Your task to perform on an android device: Open the Play Movies app and select the watchlist tab. Image 0: 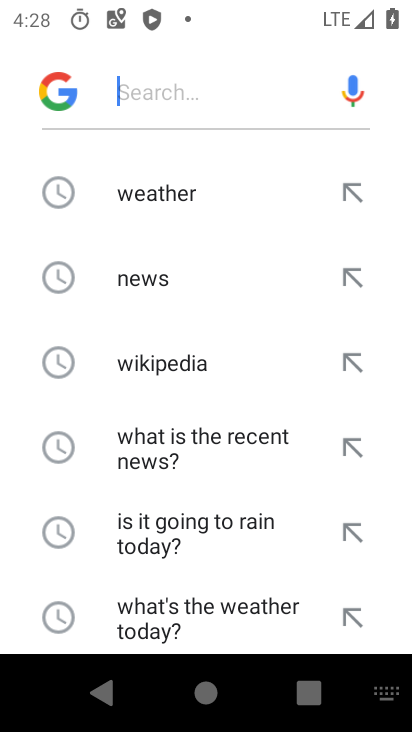
Step 0: press home button
Your task to perform on an android device: Open the Play Movies app and select the watchlist tab. Image 1: 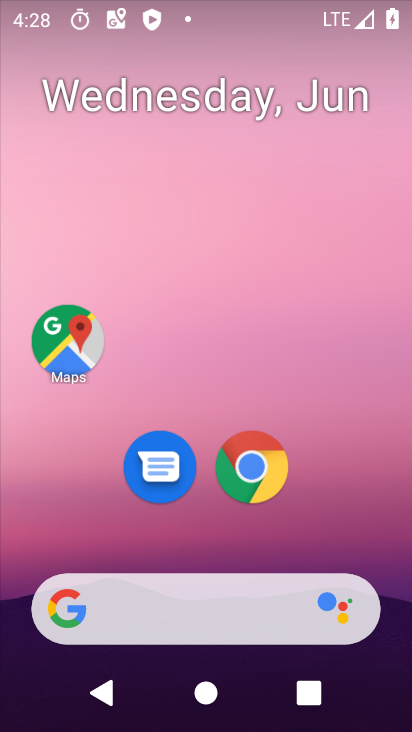
Step 1: drag from (336, 558) to (215, 37)
Your task to perform on an android device: Open the Play Movies app and select the watchlist tab. Image 2: 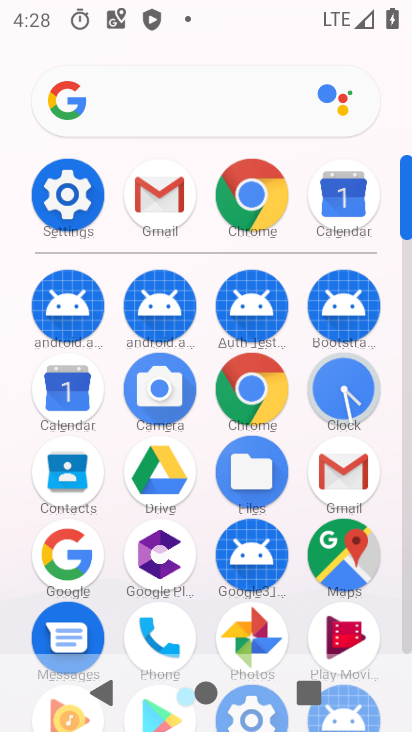
Step 2: click (353, 637)
Your task to perform on an android device: Open the Play Movies app and select the watchlist tab. Image 3: 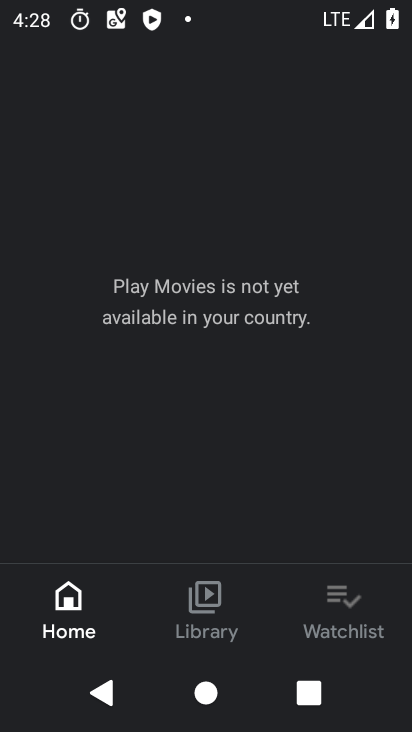
Step 3: click (343, 610)
Your task to perform on an android device: Open the Play Movies app and select the watchlist tab. Image 4: 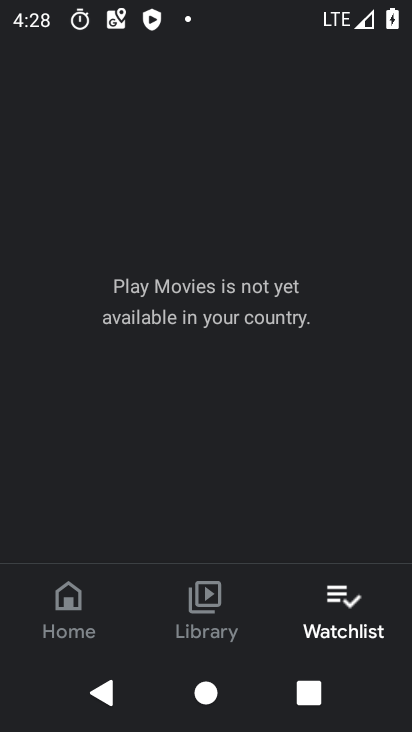
Step 4: task complete